Your task to perform on an android device: See recent photos Image 0: 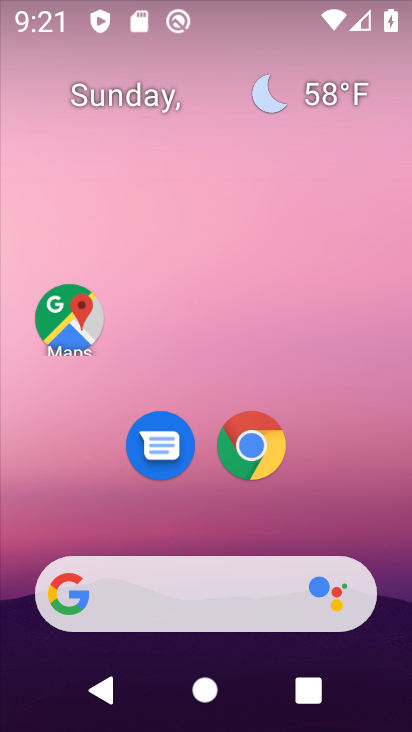
Step 0: drag from (109, 213) to (16, 124)
Your task to perform on an android device: See recent photos Image 1: 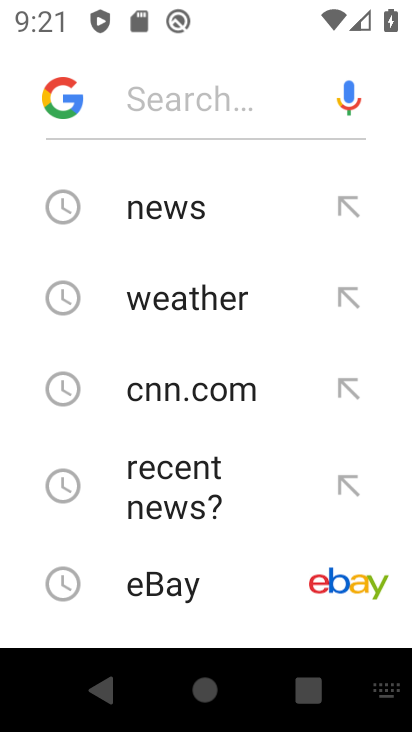
Step 1: press back button
Your task to perform on an android device: See recent photos Image 2: 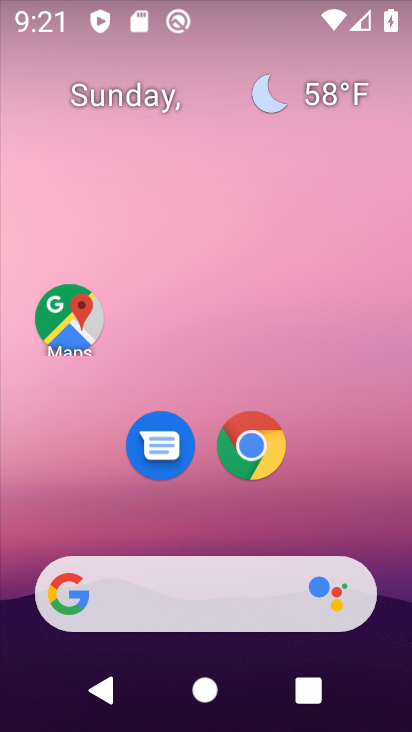
Step 2: drag from (212, 558) to (75, 10)
Your task to perform on an android device: See recent photos Image 3: 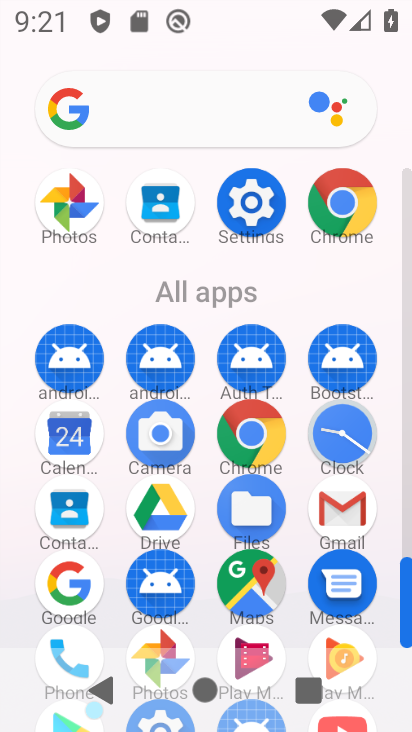
Step 3: click (168, 634)
Your task to perform on an android device: See recent photos Image 4: 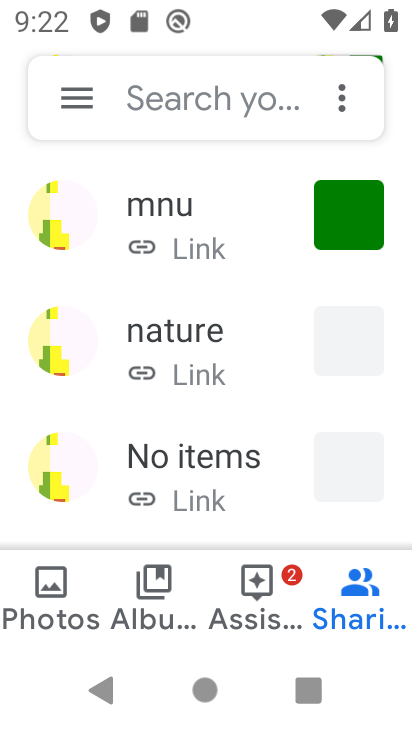
Step 4: click (74, 597)
Your task to perform on an android device: See recent photos Image 5: 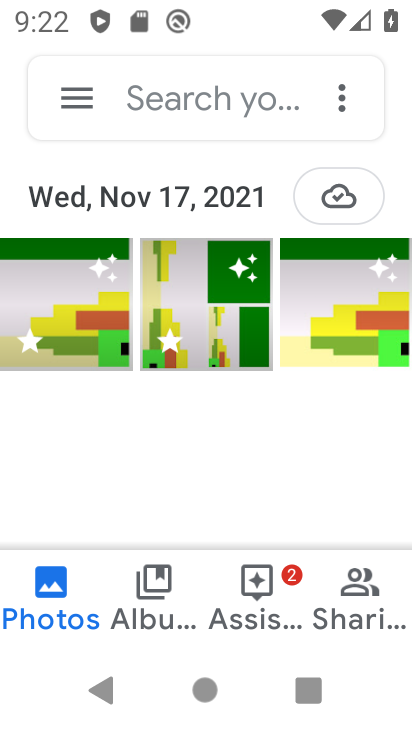
Step 5: task complete